Your task to perform on an android device: allow notifications from all sites in the chrome app Image 0: 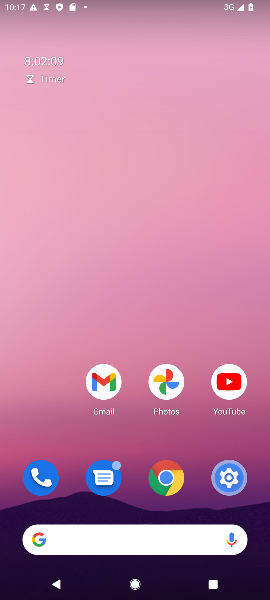
Step 0: drag from (195, 457) to (165, 82)
Your task to perform on an android device: allow notifications from all sites in the chrome app Image 1: 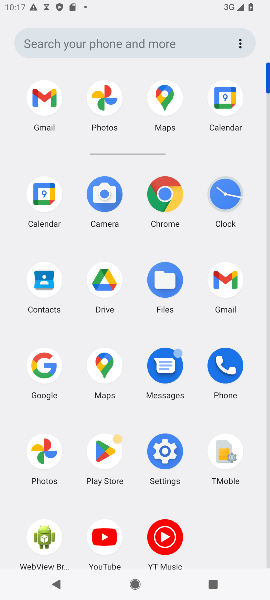
Step 1: click (178, 195)
Your task to perform on an android device: allow notifications from all sites in the chrome app Image 2: 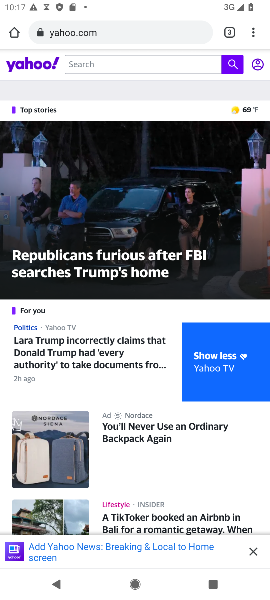
Step 2: click (256, 26)
Your task to perform on an android device: allow notifications from all sites in the chrome app Image 3: 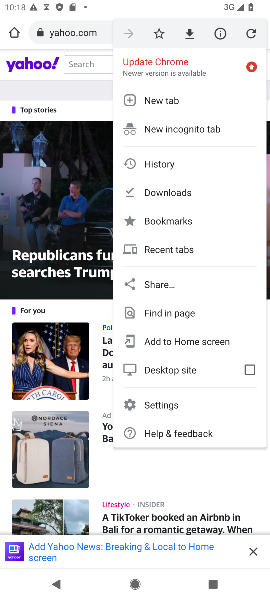
Step 3: click (190, 402)
Your task to perform on an android device: allow notifications from all sites in the chrome app Image 4: 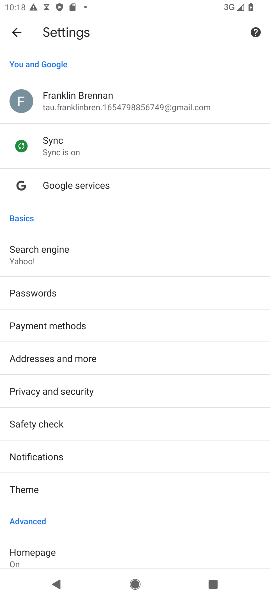
Step 4: drag from (154, 539) to (119, 189)
Your task to perform on an android device: allow notifications from all sites in the chrome app Image 5: 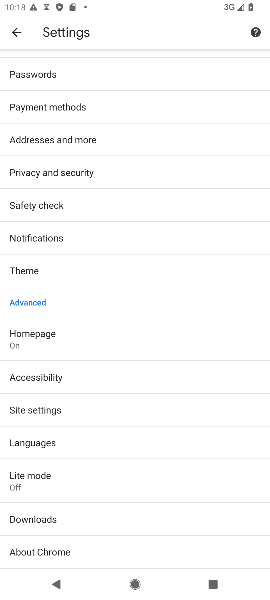
Step 5: click (151, 412)
Your task to perform on an android device: allow notifications from all sites in the chrome app Image 6: 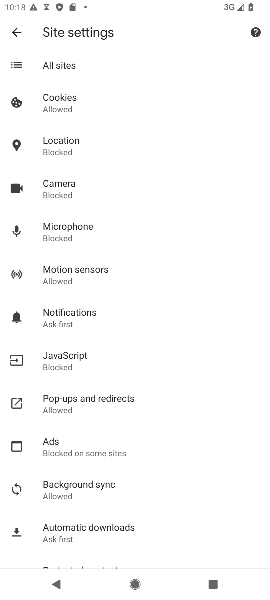
Step 6: click (118, 325)
Your task to perform on an android device: allow notifications from all sites in the chrome app Image 7: 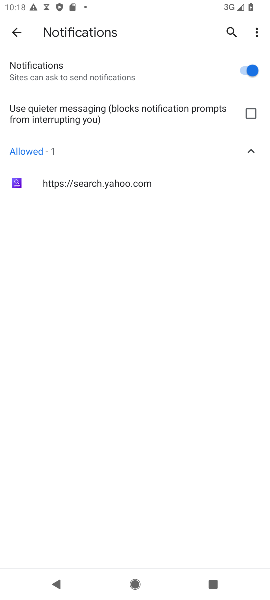
Step 7: task complete